Your task to perform on an android device: turn off data saver in the chrome app Image 0: 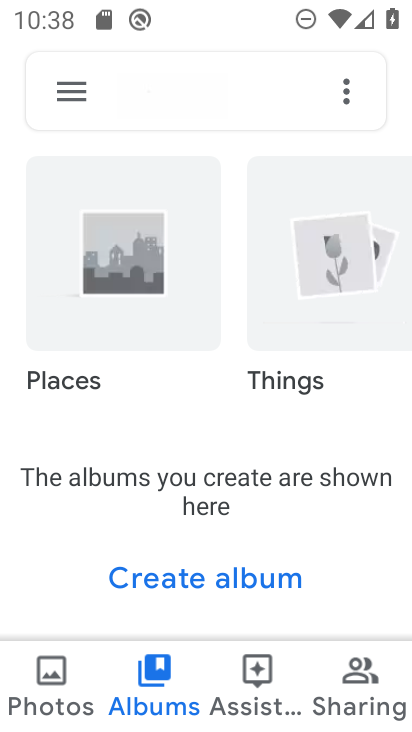
Step 0: press home button
Your task to perform on an android device: turn off data saver in the chrome app Image 1: 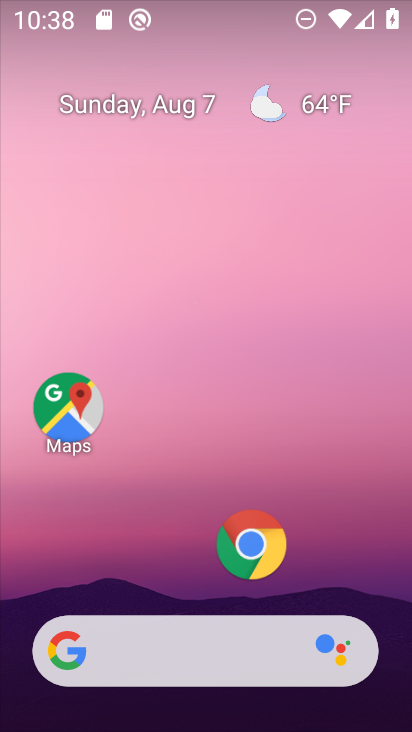
Step 1: drag from (167, 576) to (136, 14)
Your task to perform on an android device: turn off data saver in the chrome app Image 2: 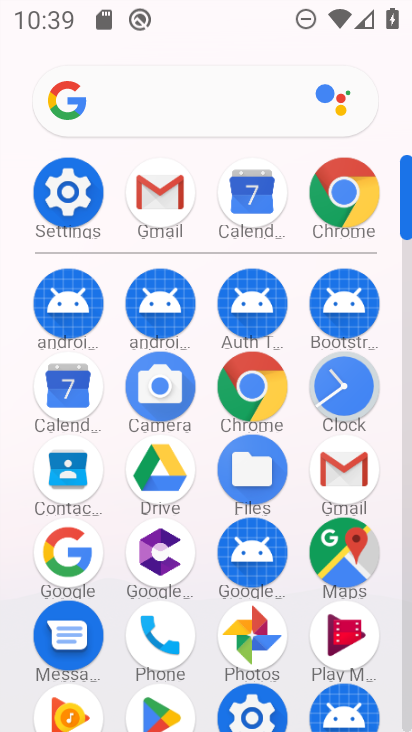
Step 2: click (368, 175)
Your task to perform on an android device: turn off data saver in the chrome app Image 3: 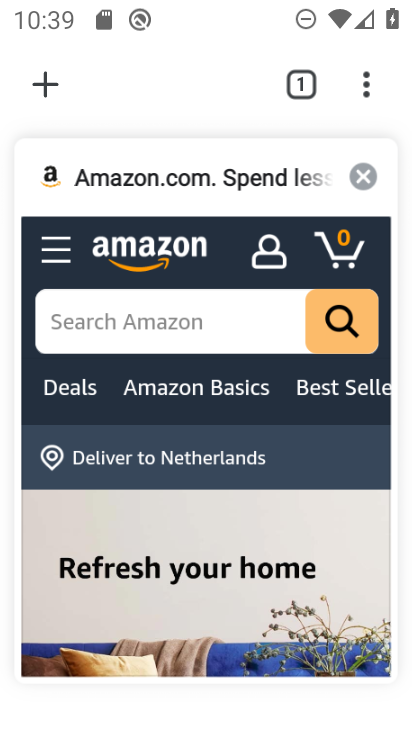
Step 3: click (210, 435)
Your task to perform on an android device: turn off data saver in the chrome app Image 4: 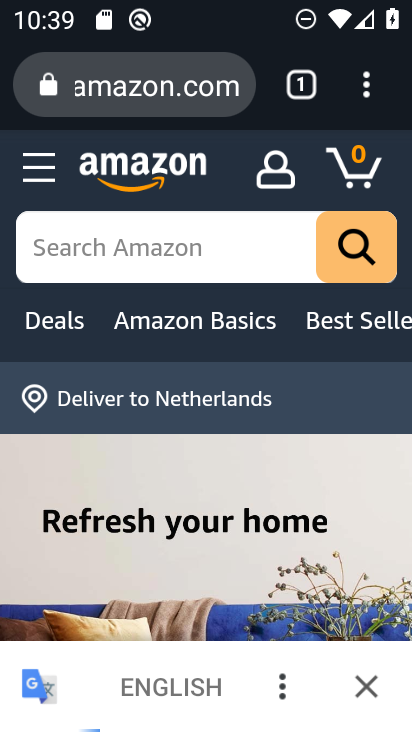
Step 4: drag from (355, 81) to (102, 594)
Your task to perform on an android device: turn off data saver in the chrome app Image 5: 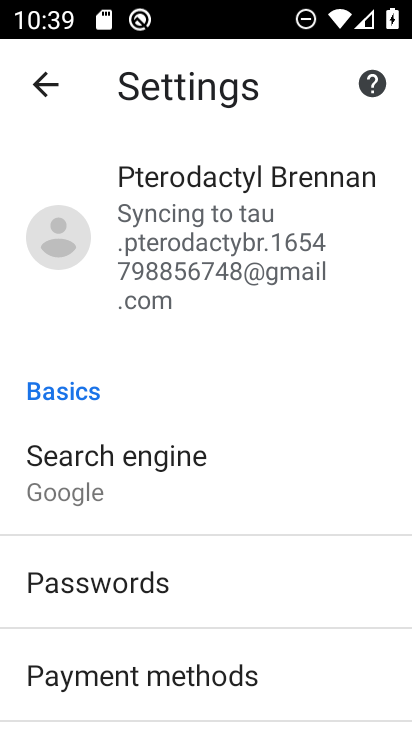
Step 5: drag from (332, 307) to (321, 134)
Your task to perform on an android device: turn off data saver in the chrome app Image 6: 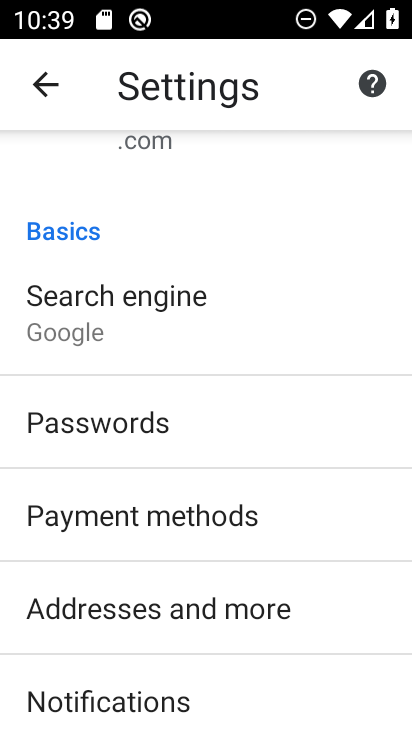
Step 6: drag from (127, 536) to (118, 104)
Your task to perform on an android device: turn off data saver in the chrome app Image 7: 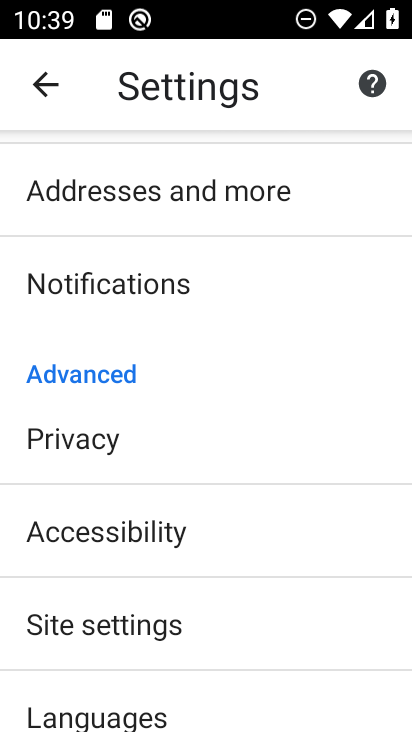
Step 7: drag from (175, 519) to (215, 15)
Your task to perform on an android device: turn off data saver in the chrome app Image 8: 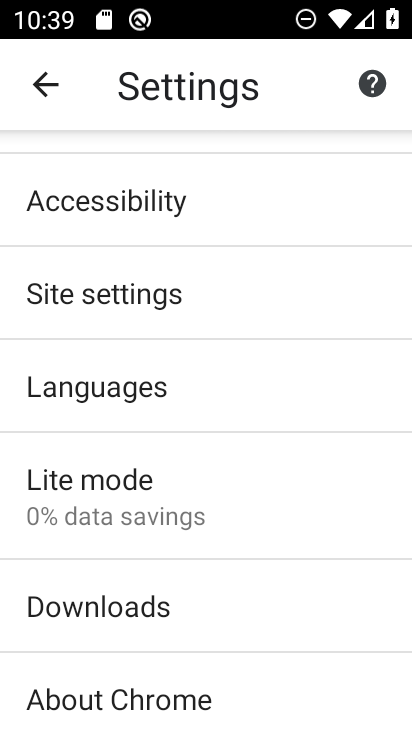
Step 8: click (117, 491)
Your task to perform on an android device: turn off data saver in the chrome app Image 9: 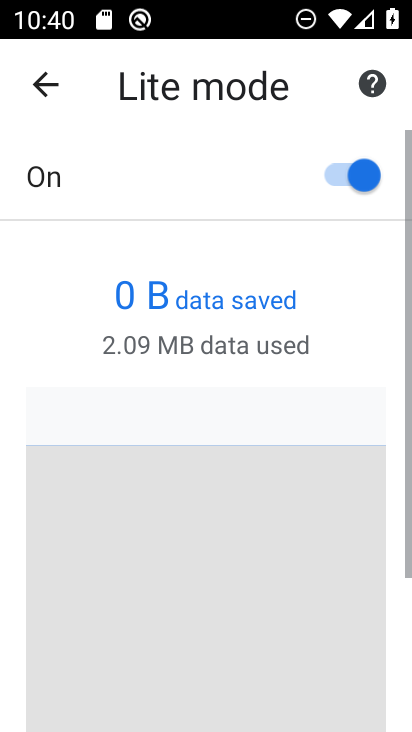
Step 9: click (330, 176)
Your task to perform on an android device: turn off data saver in the chrome app Image 10: 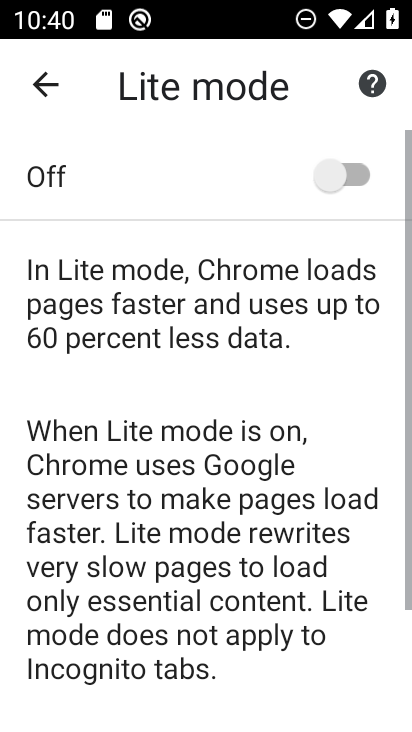
Step 10: task complete